Your task to perform on an android device: uninstall "Fetch Rewards" Image 0: 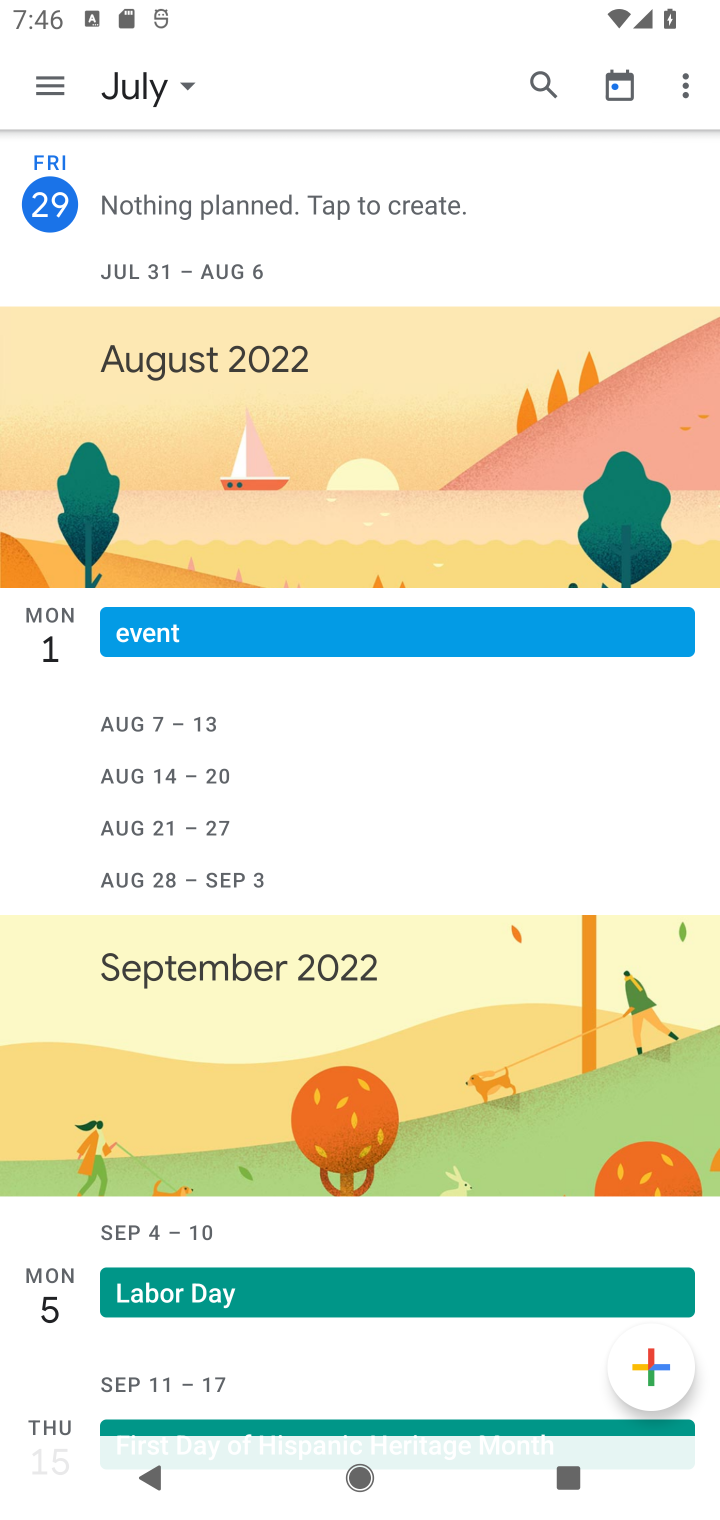
Step 0: press home button
Your task to perform on an android device: uninstall "Fetch Rewards" Image 1: 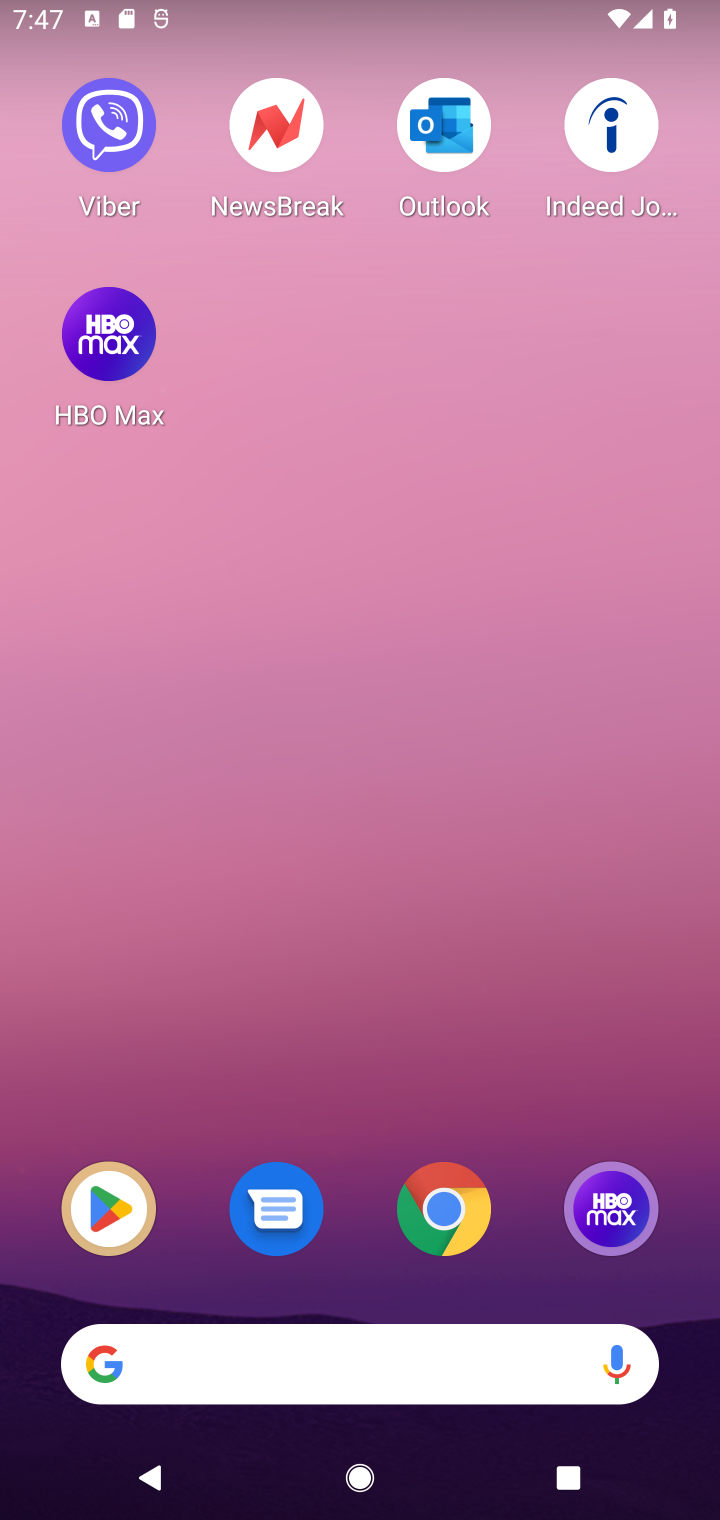
Step 1: click (121, 1219)
Your task to perform on an android device: uninstall "Fetch Rewards" Image 2: 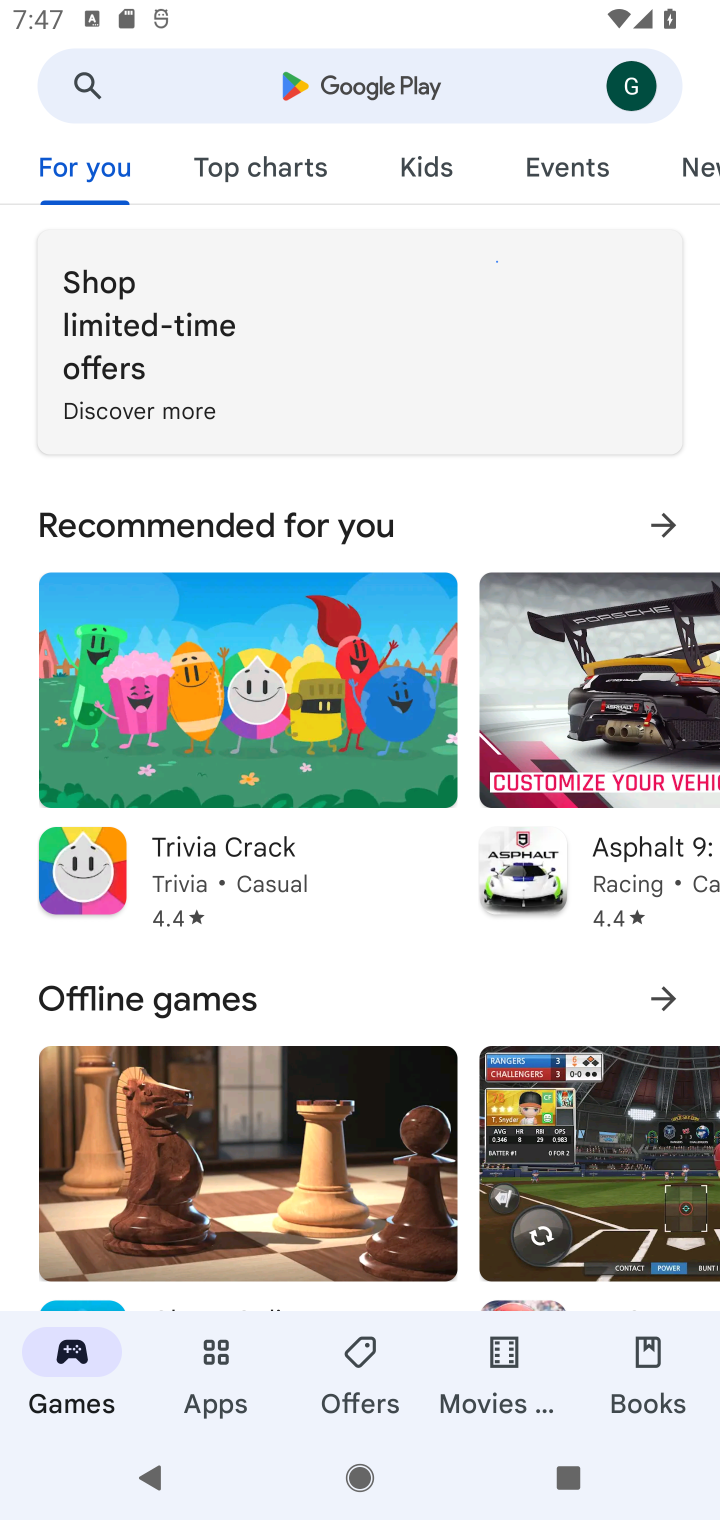
Step 2: click (409, 81)
Your task to perform on an android device: uninstall "Fetch Rewards" Image 3: 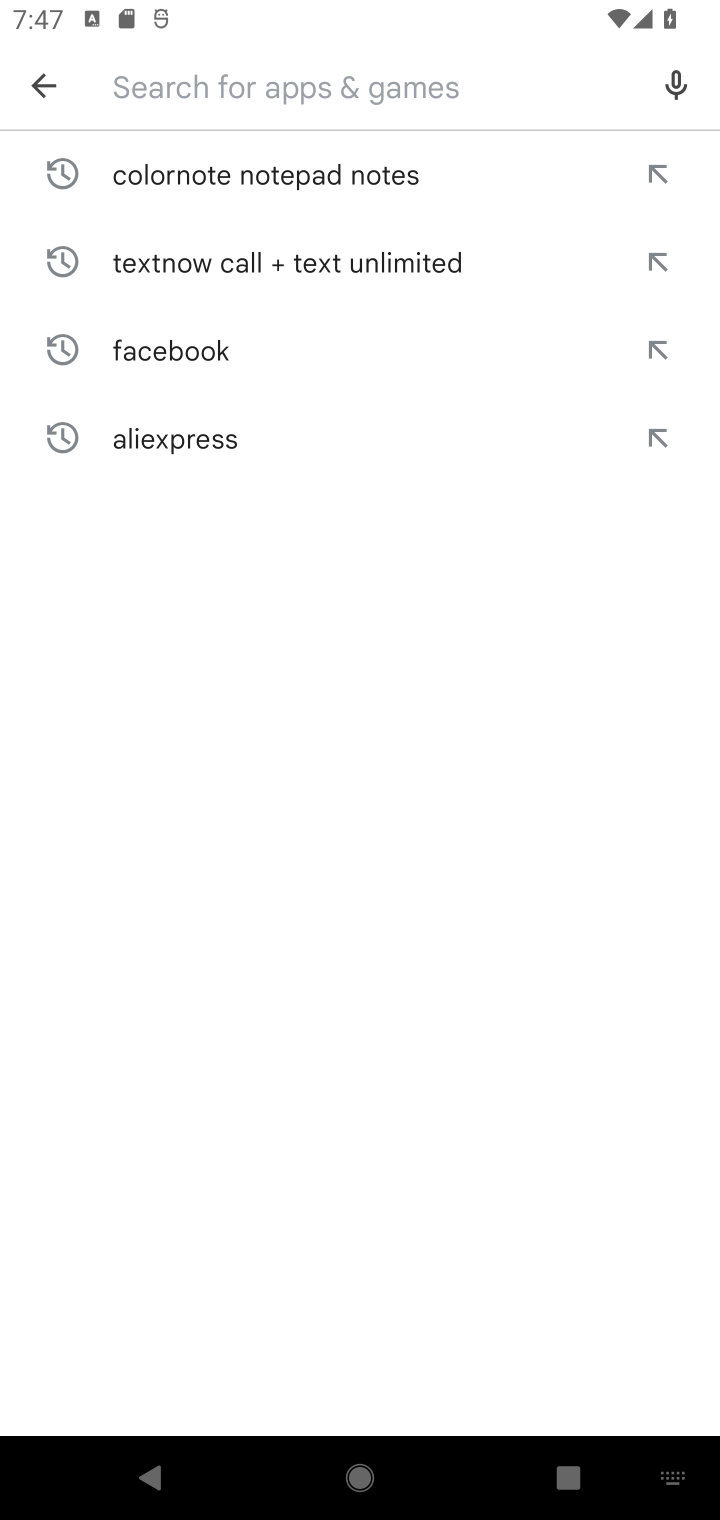
Step 3: type "Fetch Rewards"
Your task to perform on an android device: uninstall "Fetch Rewards" Image 4: 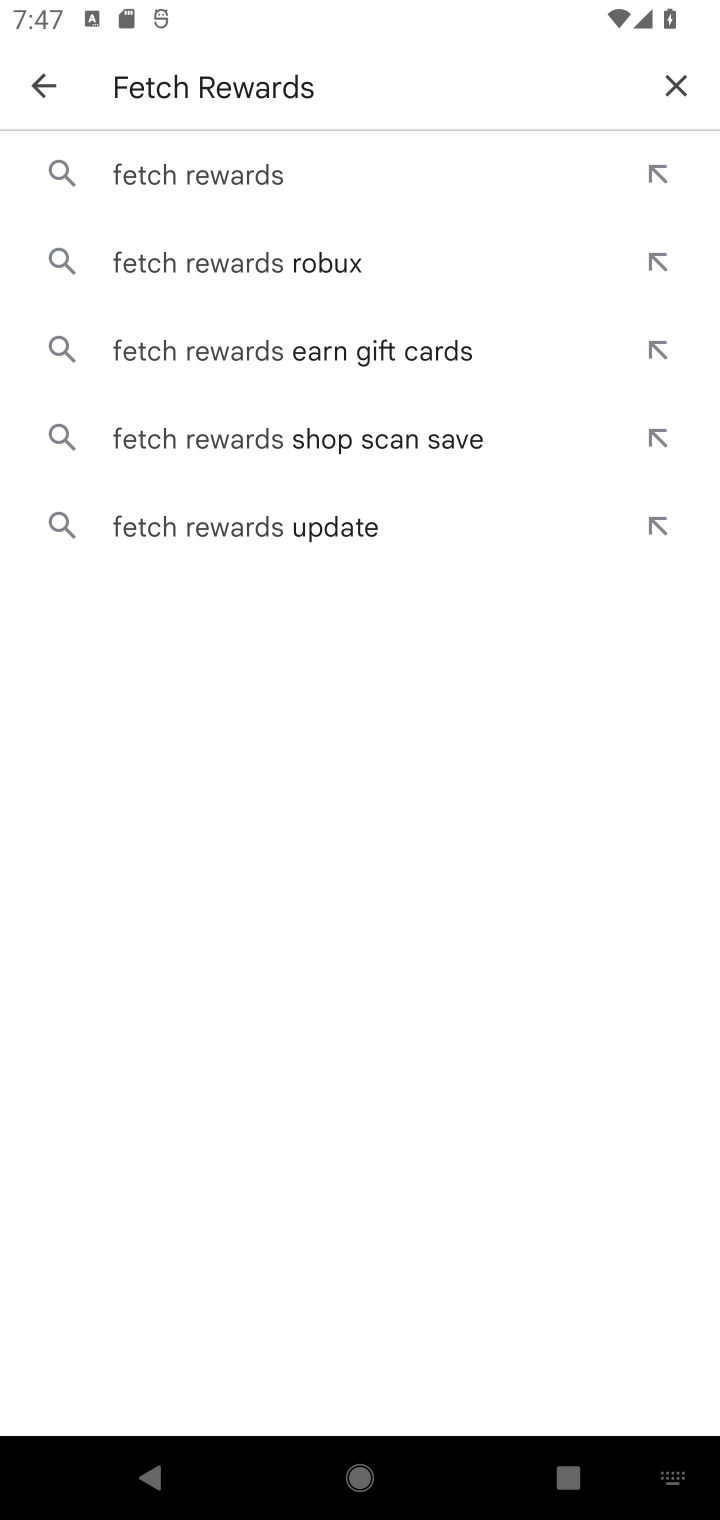
Step 4: click (222, 189)
Your task to perform on an android device: uninstall "Fetch Rewards" Image 5: 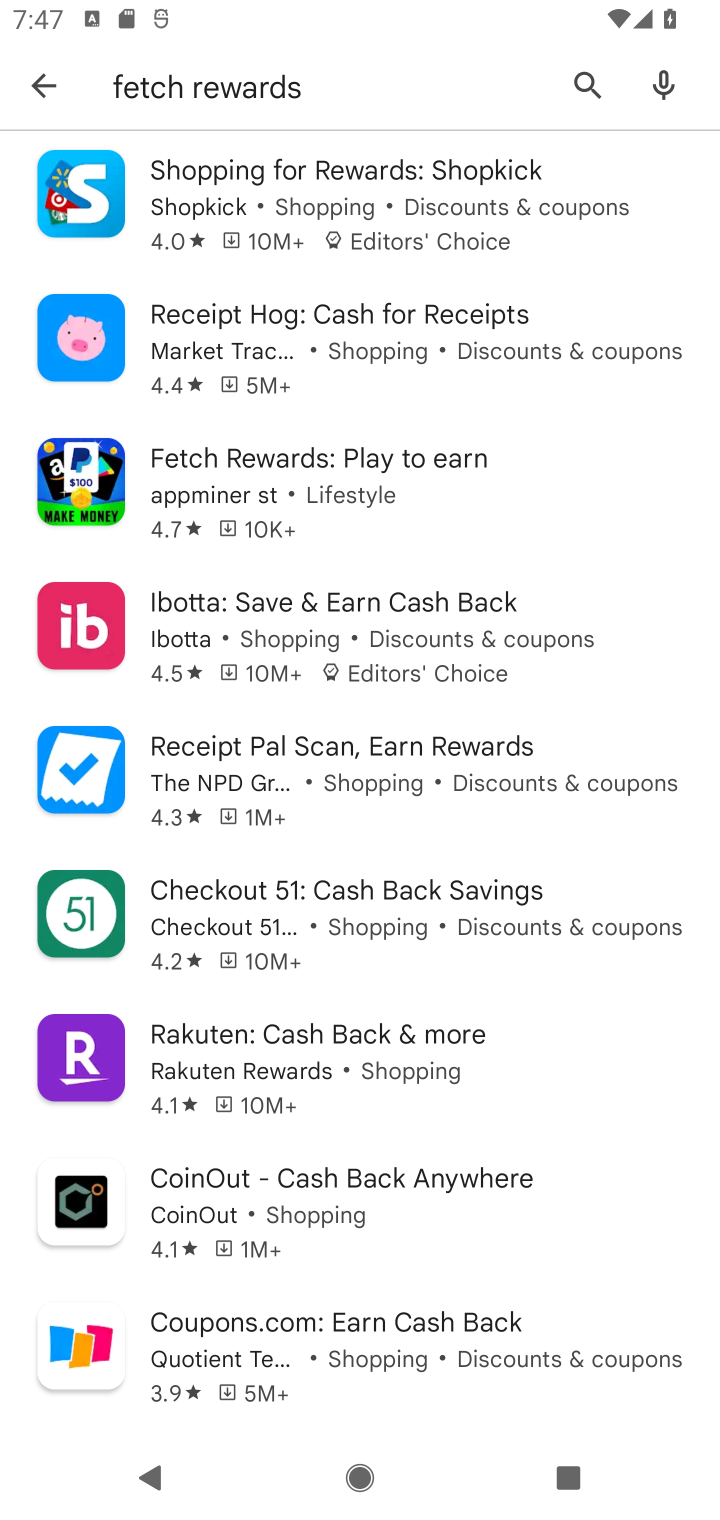
Step 5: click (213, 490)
Your task to perform on an android device: uninstall "Fetch Rewards" Image 6: 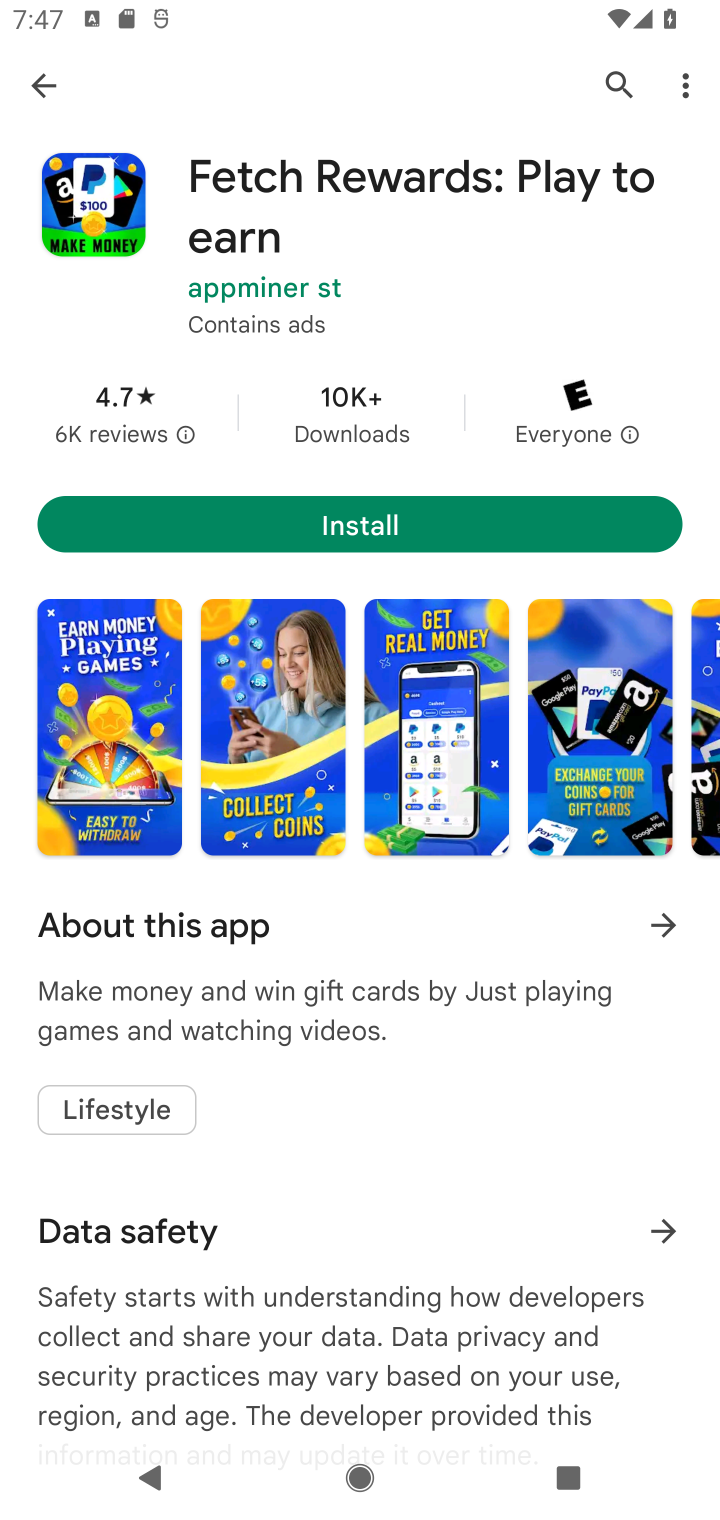
Step 6: task complete